Your task to perform on an android device: find which apps use the phone's location Image 0: 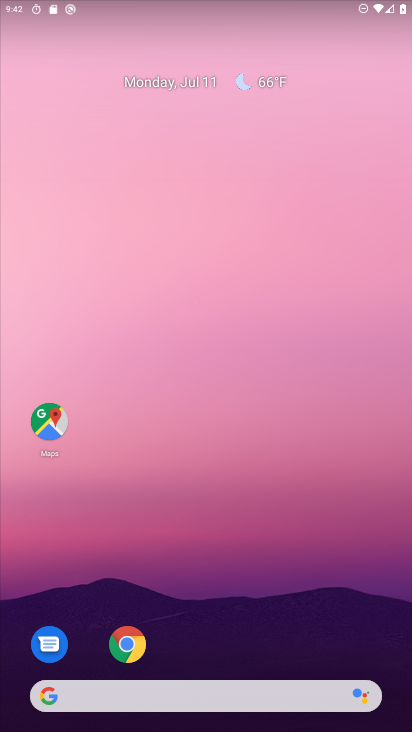
Step 0: drag from (259, 609) to (293, 96)
Your task to perform on an android device: find which apps use the phone's location Image 1: 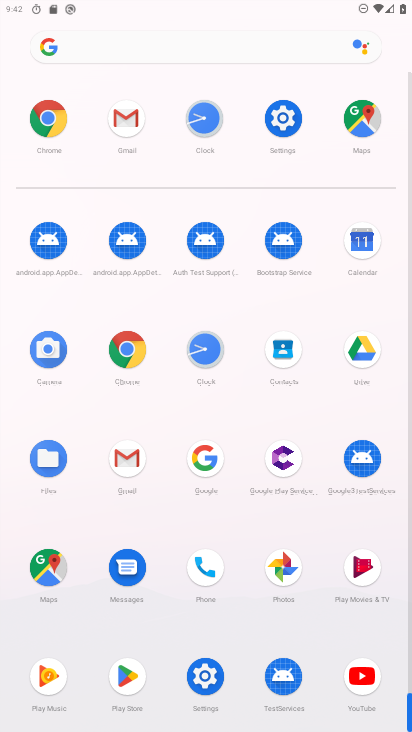
Step 1: click (280, 117)
Your task to perform on an android device: find which apps use the phone's location Image 2: 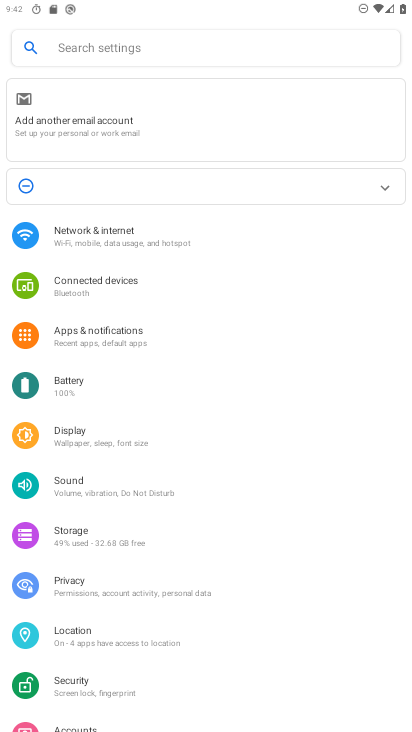
Step 2: click (92, 637)
Your task to perform on an android device: find which apps use the phone's location Image 3: 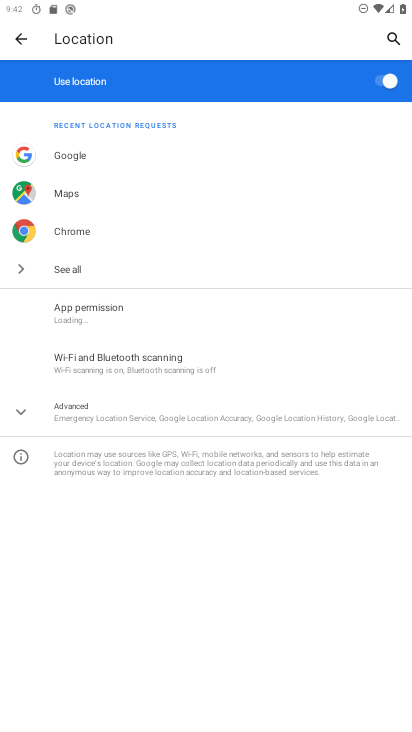
Step 3: click (138, 311)
Your task to perform on an android device: find which apps use the phone's location Image 4: 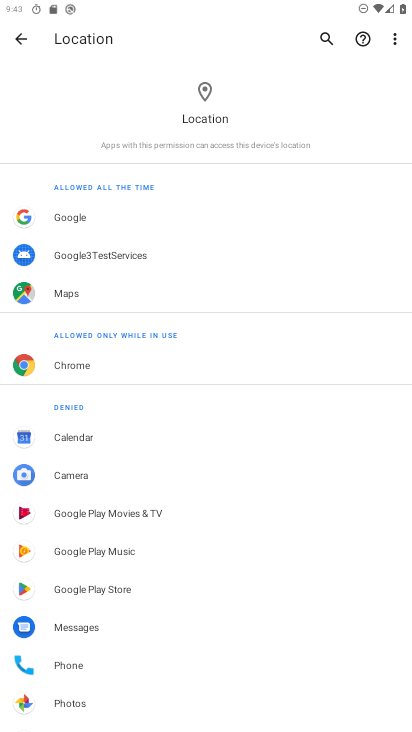
Step 4: task complete